Your task to perform on an android device: toggle improve location accuracy Image 0: 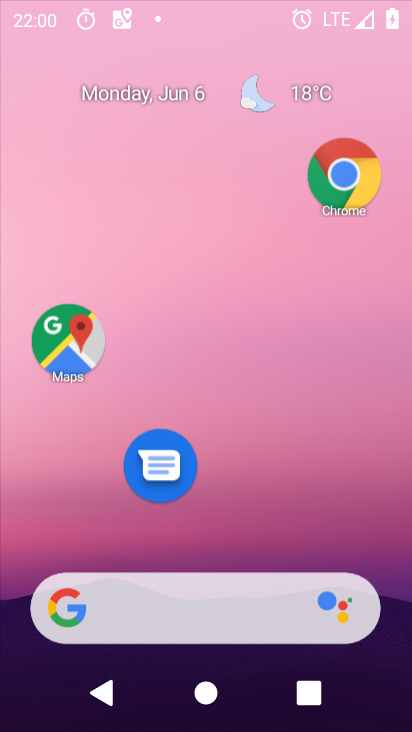
Step 0: click (294, 115)
Your task to perform on an android device: toggle improve location accuracy Image 1: 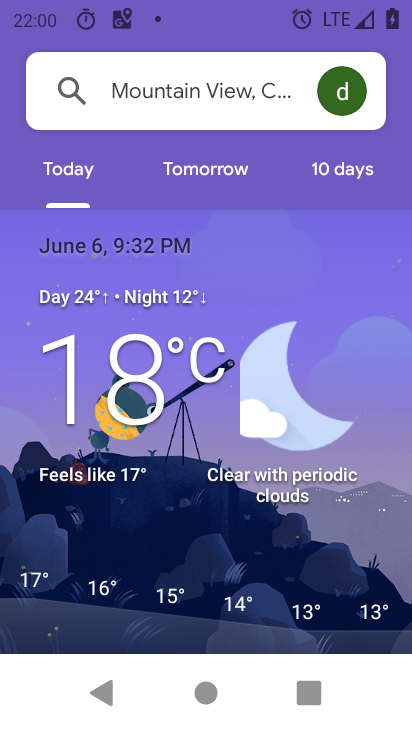
Step 1: drag from (198, 439) to (243, 48)
Your task to perform on an android device: toggle improve location accuracy Image 2: 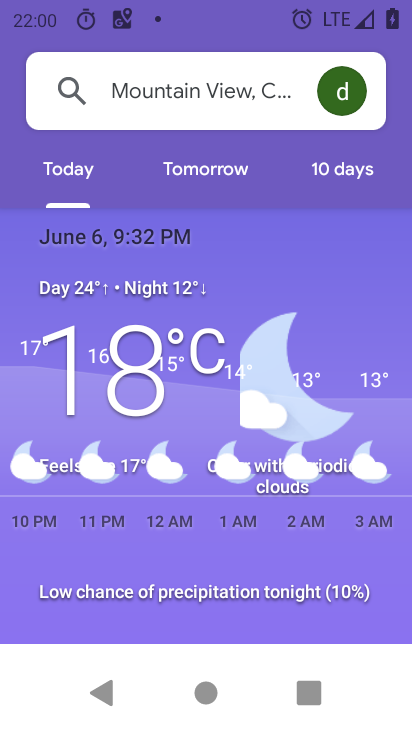
Step 2: drag from (119, 215) to (403, 726)
Your task to perform on an android device: toggle improve location accuracy Image 3: 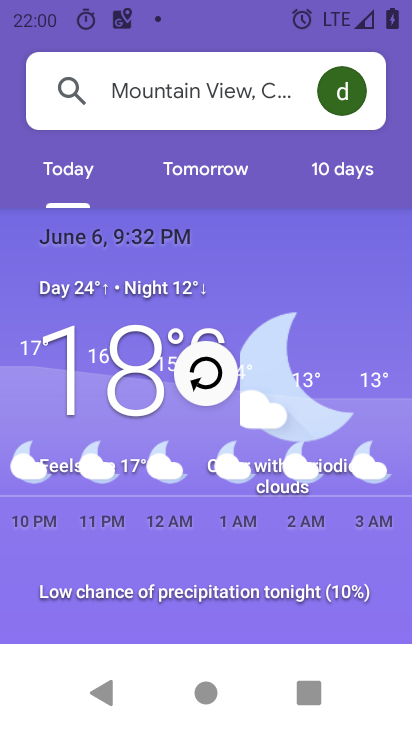
Step 3: press home button
Your task to perform on an android device: toggle improve location accuracy Image 4: 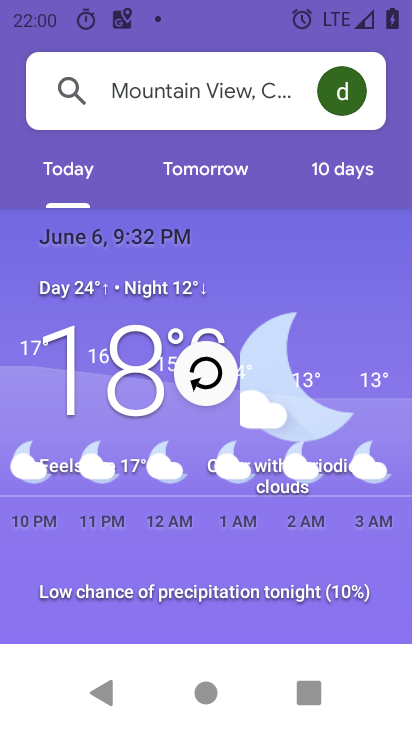
Step 4: drag from (403, 726) to (403, 343)
Your task to perform on an android device: toggle improve location accuracy Image 5: 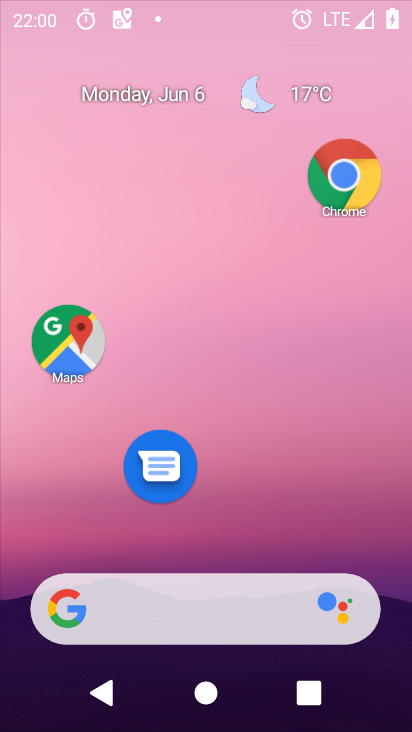
Step 5: drag from (261, 453) to (314, 80)
Your task to perform on an android device: toggle improve location accuracy Image 6: 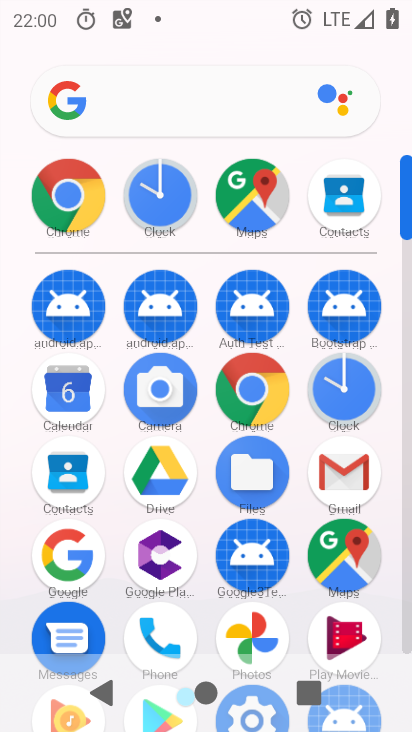
Step 6: drag from (204, 598) to (218, 112)
Your task to perform on an android device: toggle improve location accuracy Image 7: 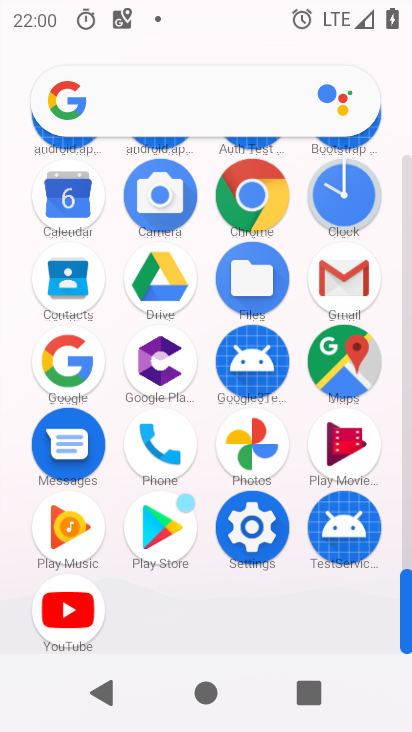
Step 7: click (259, 514)
Your task to perform on an android device: toggle improve location accuracy Image 8: 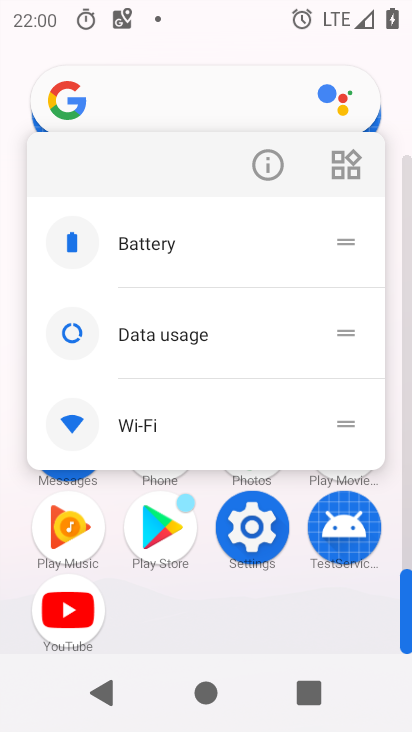
Step 8: click (272, 153)
Your task to perform on an android device: toggle improve location accuracy Image 9: 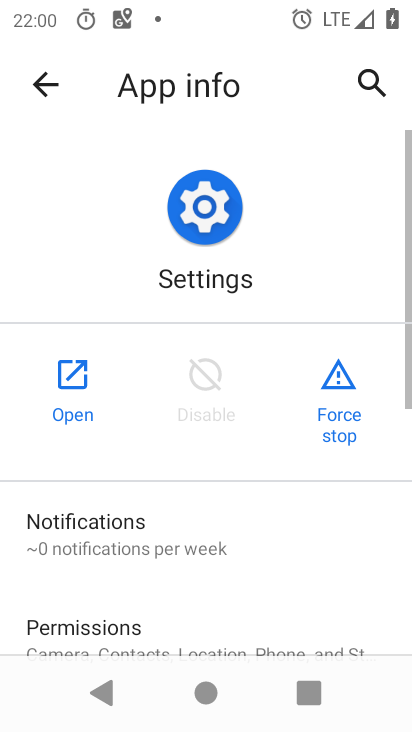
Step 9: click (55, 425)
Your task to perform on an android device: toggle improve location accuracy Image 10: 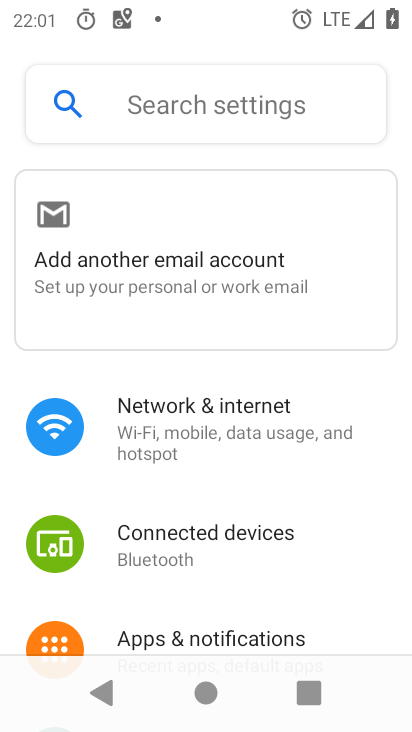
Step 10: drag from (211, 546) to (301, 169)
Your task to perform on an android device: toggle improve location accuracy Image 11: 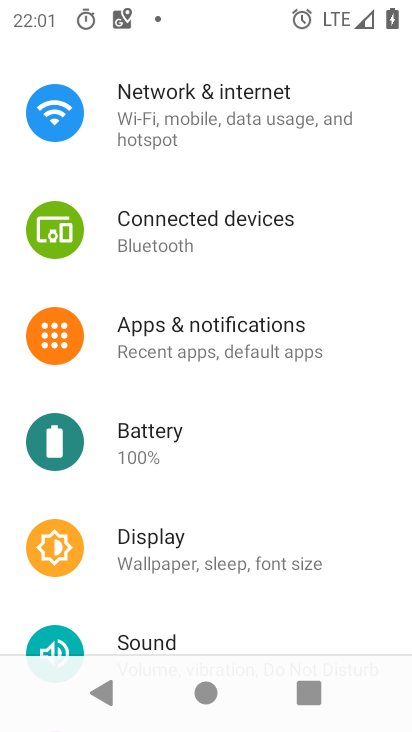
Step 11: drag from (246, 605) to (275, 269)
Your task to perform on an android device: toggle improve location accuracy Image 12: 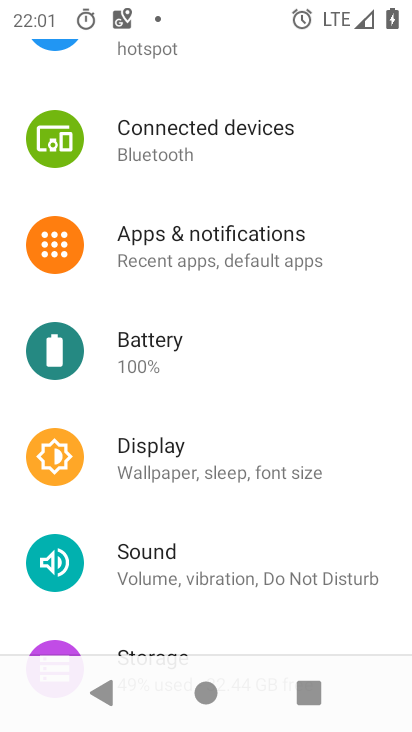
Step 12: drag from (174, 548) to (260, 214)
Your task to perform on an android device: toggle improve location accuracy Image 13: 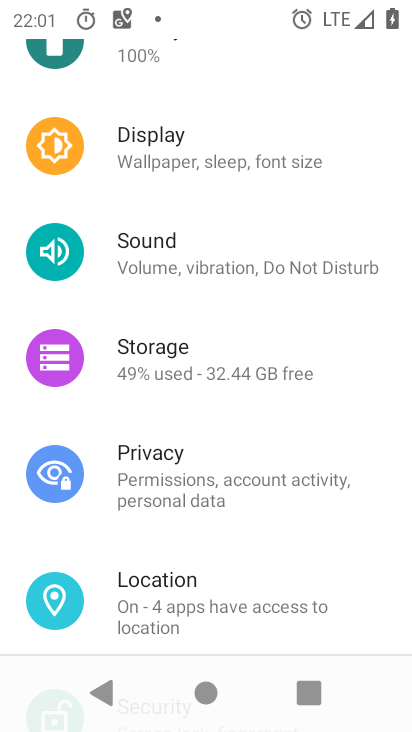
Step 13: drag from (168, 578) to (237, 264)
Your task to perform on an android device: toggle improve location accuracy Image 14: 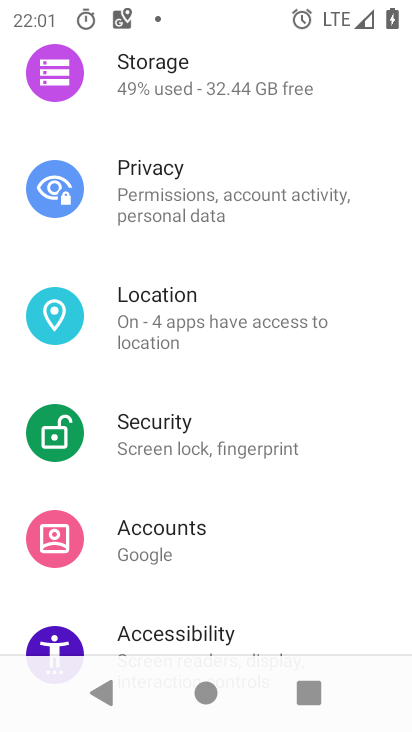
Step 14: click (185, 322)
Your task to perform on an android device: toggle improve location accuracy Image 15: 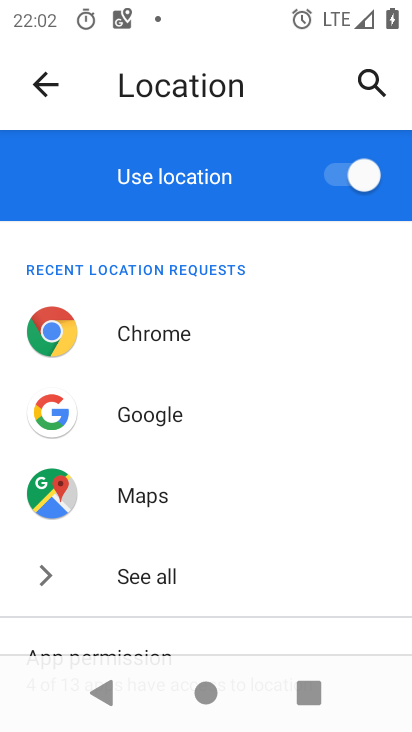
Step 15: drag from (165, 543) to (258, 86)
Your task to perform on an android device: toggle improve location accuracy Image 16: 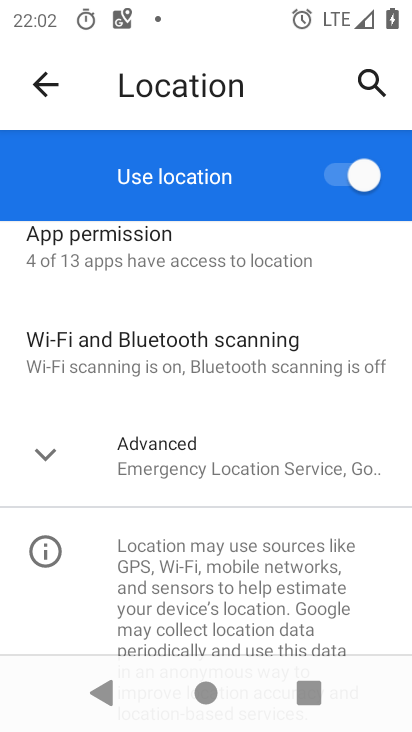
Step 16: click (203, 483)
Your task to perform on an android device: toggle improve location accuracy Image 17: 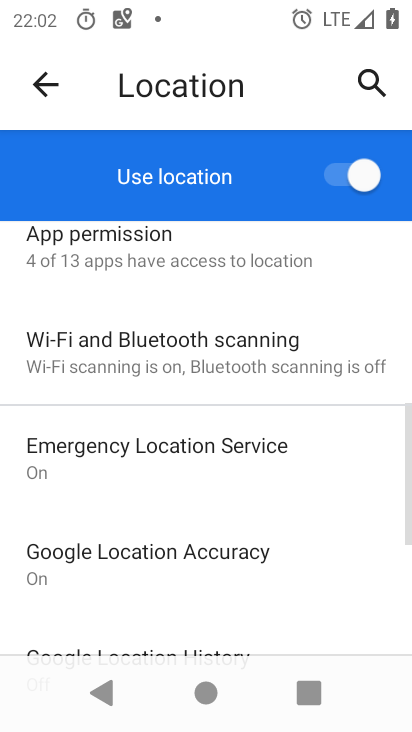
Step 17: drag from (226, 604) to (261, 321)
Your task to perform on an android device: toggle improve location accuracy Image 18: 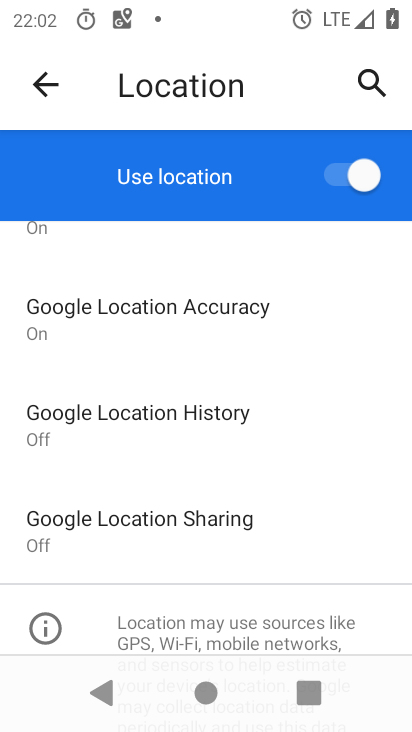
Step 18: click (181, 326)
Your task to perform on an android device: toggle improve location accuracy Image 19: 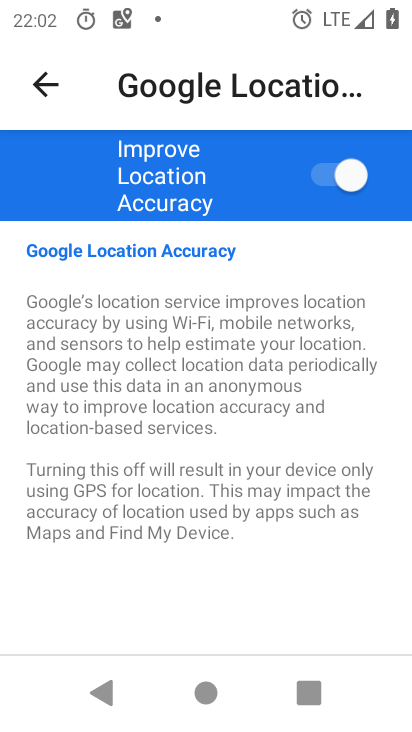
Step 19: click (332, 180)
Your task to perform on an android device: toggle improve location accuracy Image 20: 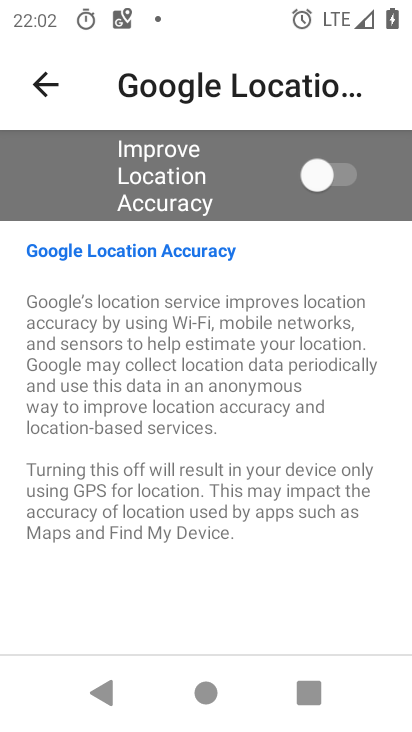
Step 20: task complete